Your task to perform on an android device: turn pop-ups on in chrome Image 0: 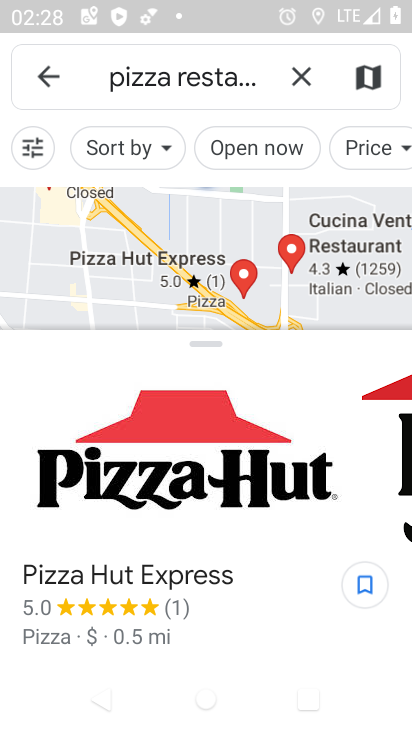
Step 0: press home button
Your task to perform on an android device: turn pop-ups on in chrome Image 1: 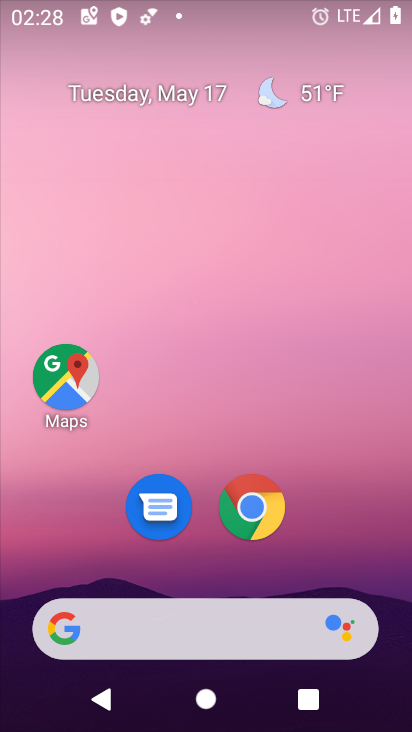
Step 1: click (253, 506)
Your task to perform on an android device: turn pop-ups on in chrome Image 2: 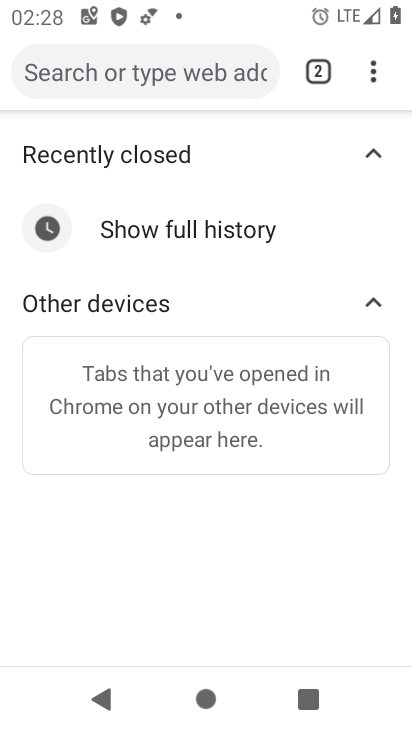
Step 2: click (366, 77)
Your task to perform on an android device: turn pop-ups on in chrome Image 3: 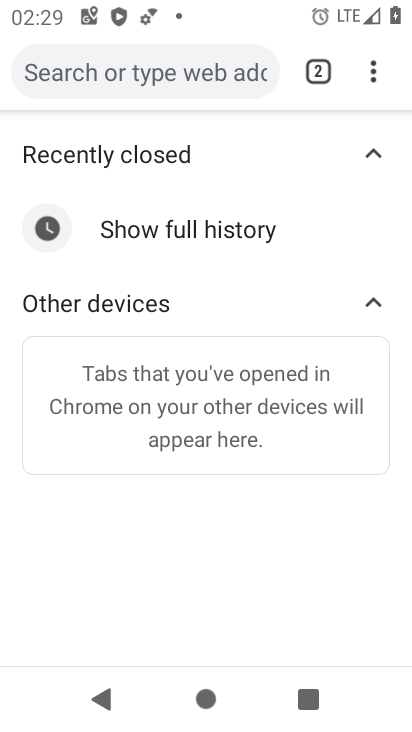
Step 3: click (368, 79)
Your task to perform on an android device: turn pop-ups on in chrome Image 4: 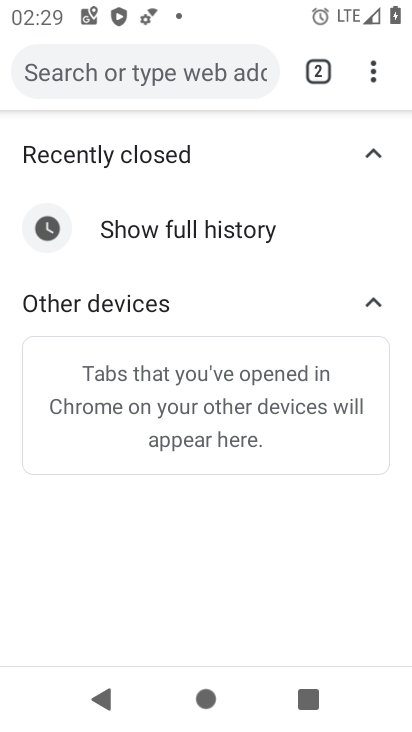
Step 4: click (371, 69)
Your task to perform on an android device: turn pop-ups on in chrome Image 5: 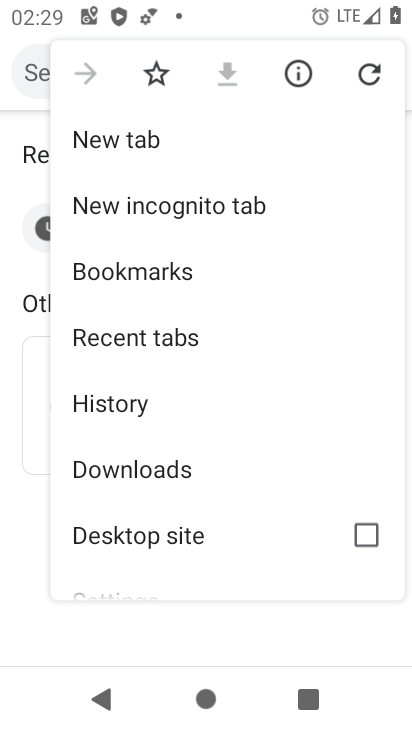
Step 5: drag from (154, 530) to (152, 343)
Your task to perform on an android device: turn pop-ups on in chrome Image 6: 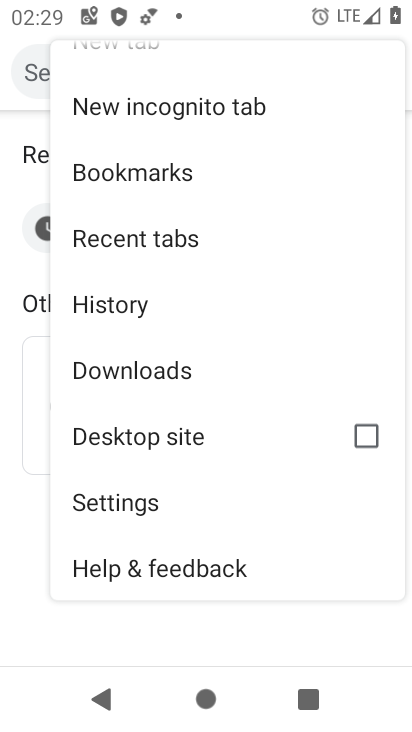
Step 6: click (126, 509)
Your task to perform on an android device: turn pop-ups on in chrome Image 7: 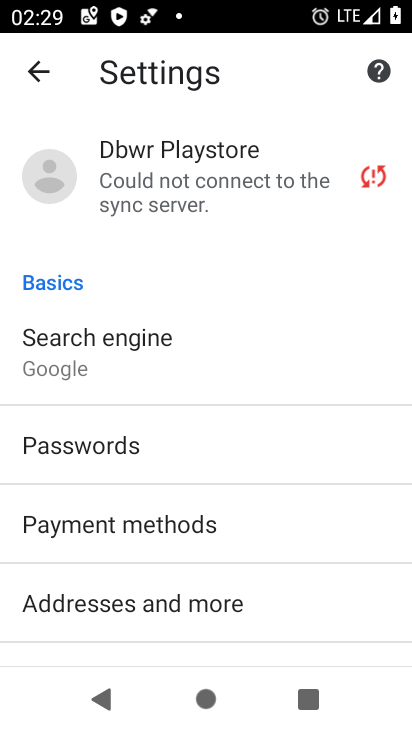
Step 7: drag from (166, 611) to (152, 427)
Your task to perform on an android device: turn pop-ups on in chrome Image 8: 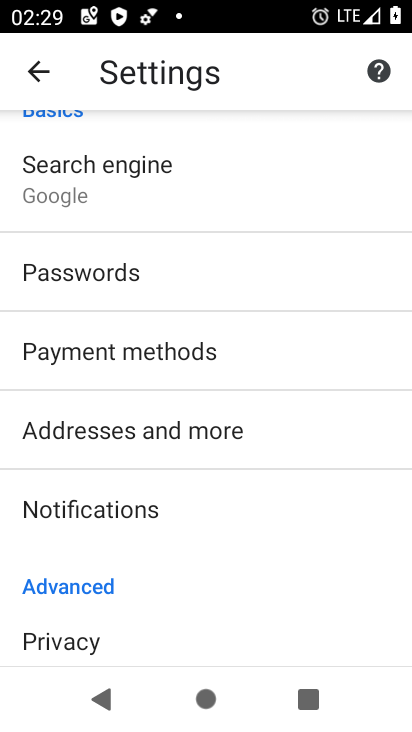
Step 8: drag from (185, 619) to (158, 433)
Your task to perform on an android device: turn pop-ups on in chrome Image 9: 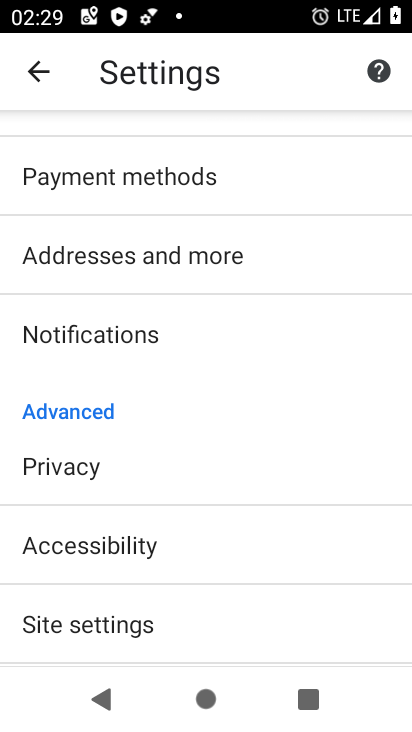
Step 9: click (185, 624)
Your task to perform on an android device: turn pop-ups on in chrome Image 10: 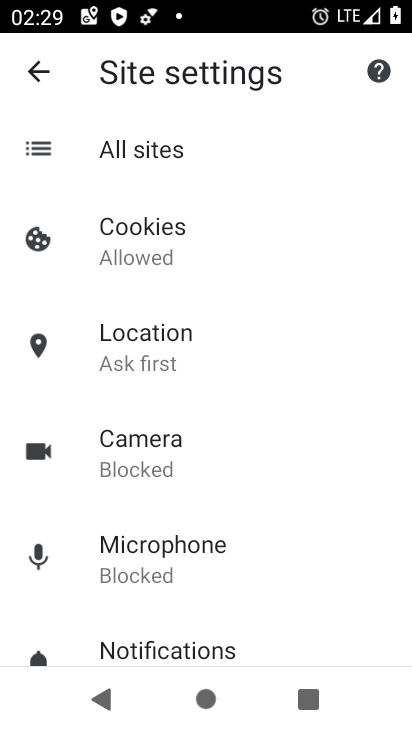
Step 10: drag from (158, 629) to (147, 425)
Your task to perform on an android device: turn pop-ups on in chrome Image 11: 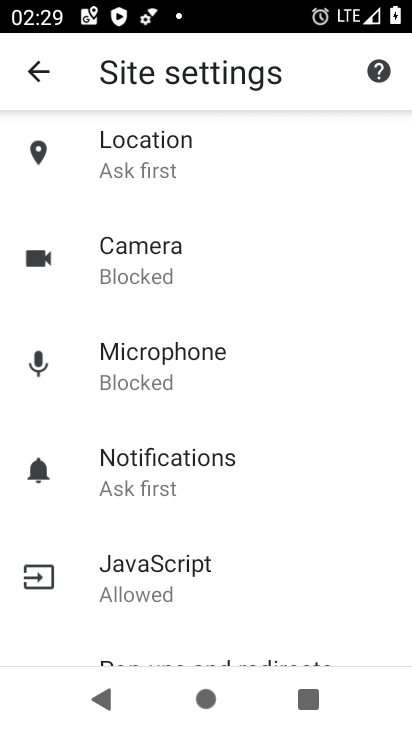
Step 11: drag from (156, 617) to (177, 417)
Your task to perform on an android device: turn pop-ups on in chrome Image 12: 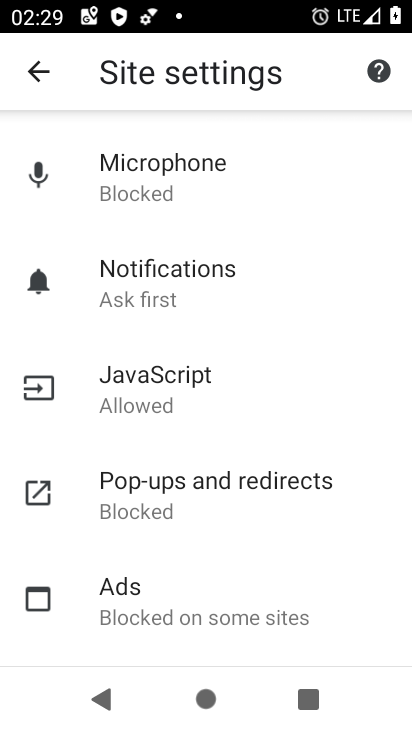
Step 12: click (181, 506)
Your task to perform on an android device: turn pop-ups on in chrome Image 13: 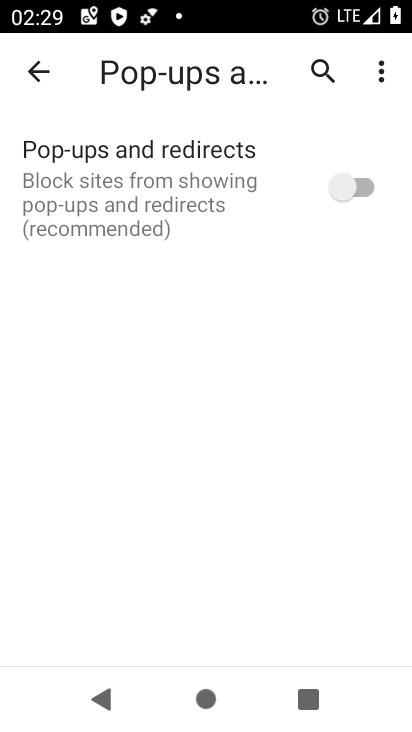
Step 13: click (362, 187)
Your task to perform on an android device: turn pop-ups on in chrome Image 14: 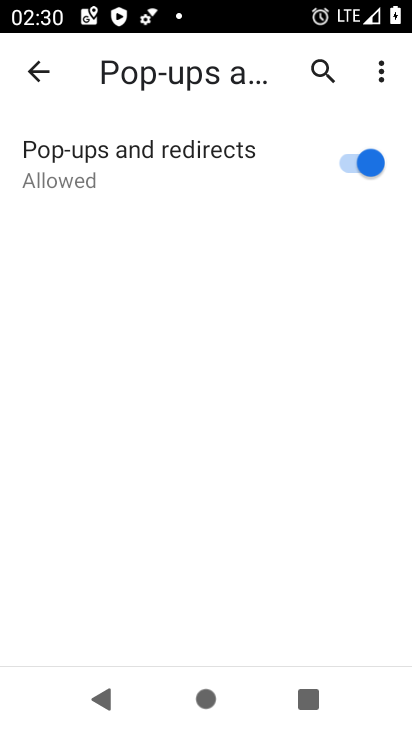
Step 14: task complete